Your task to perform on an android device: Open Yahoo.com Image 0: 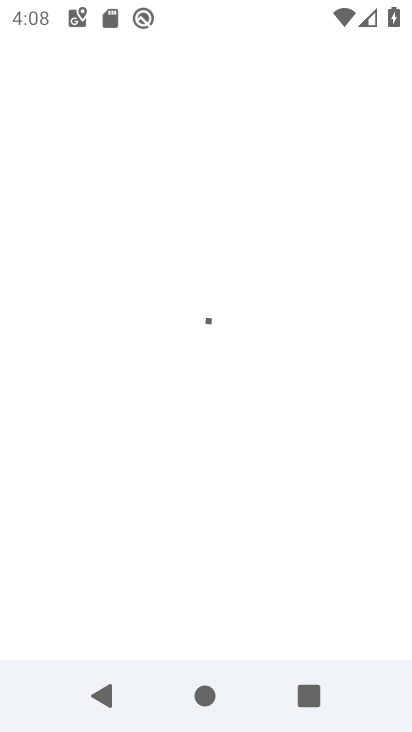
Step 0: press back button
Your task to perform on an android device: Open Yahoo.com Image 1: 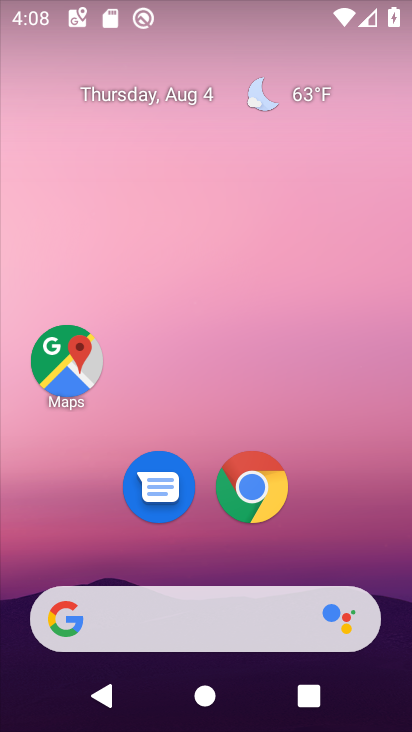
Step 1: click (263, 484)
Your task to perform on an android device: Open Yahoo.com Image 2: 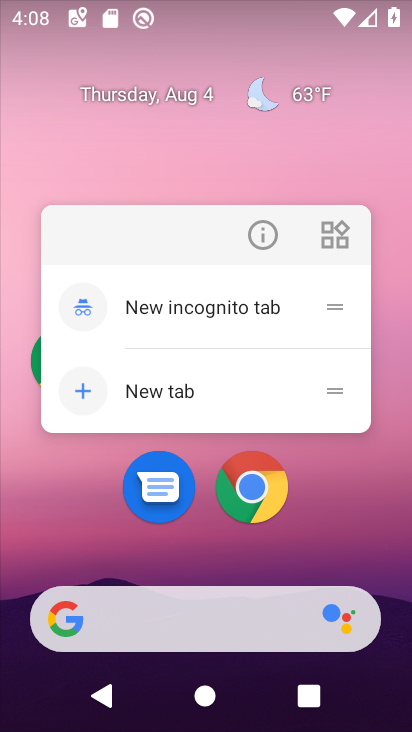
Step 2: click (270, 480)
Your task to perform on an android device: Open Yahoo.com Image 3: 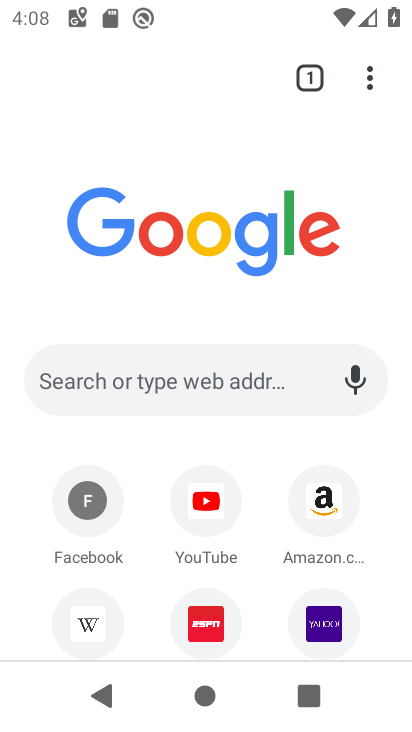
Step 3: click (319, 614)
Your task to perform on an android device: Open Yahoo.com Image 4: 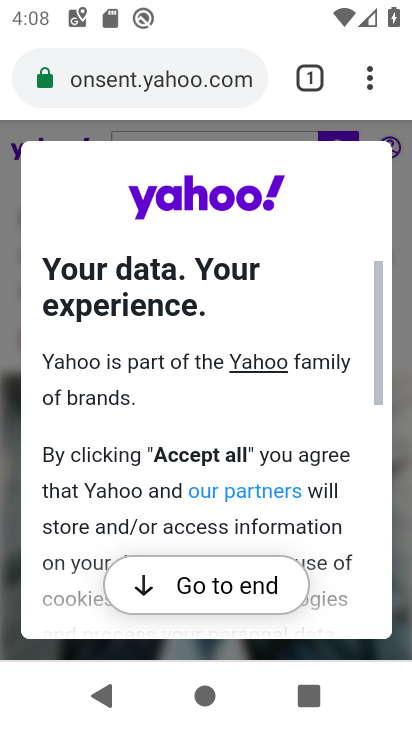
Step 4: task complete